Your task to perform on an android device: Open the calendar and show me this week's events? Image 0: 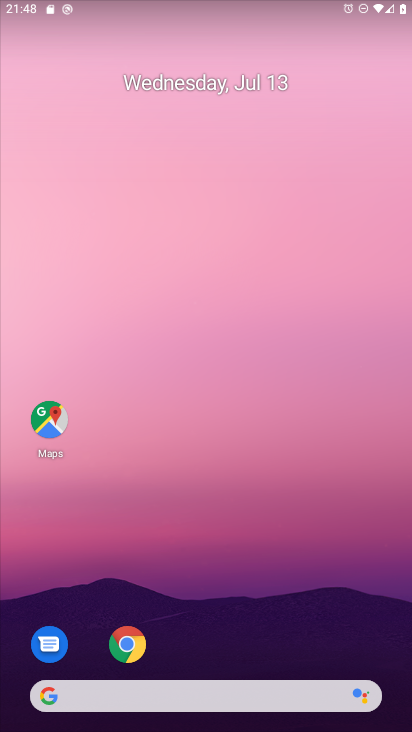
Step 0: press home button
Your task to perform on an android device: Open the calendar and show me this week's events? Image 1: 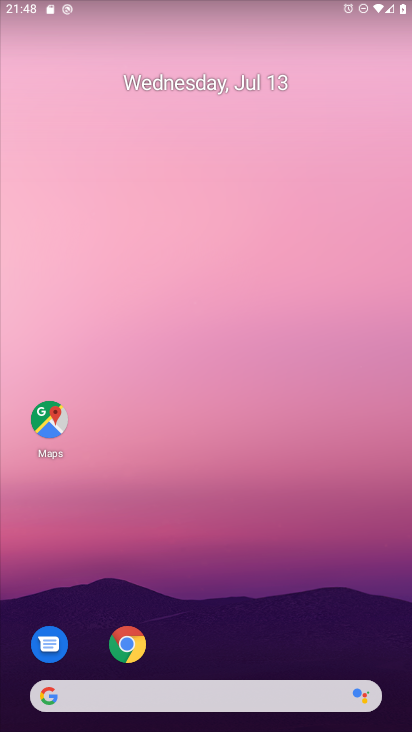
Step 1: drag from (302, 613) to (285, 167)
Your task to perform on an android device: Open the calendar and show me this week's events? Image 2: 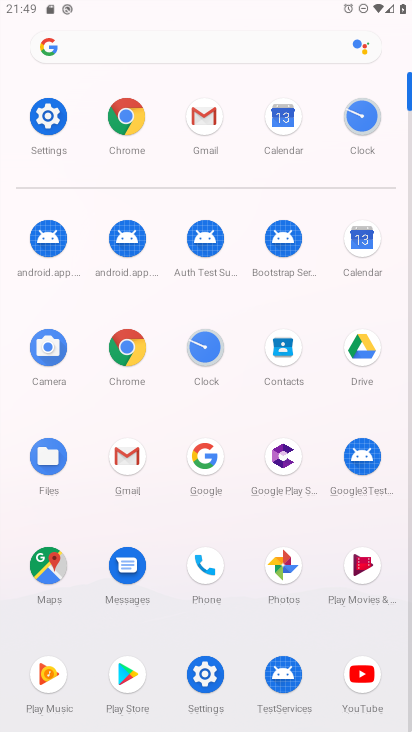
Step 2: click (362, 246)
Your task to perform on an android device: Open the calendar and show me this week's events? Image 3: 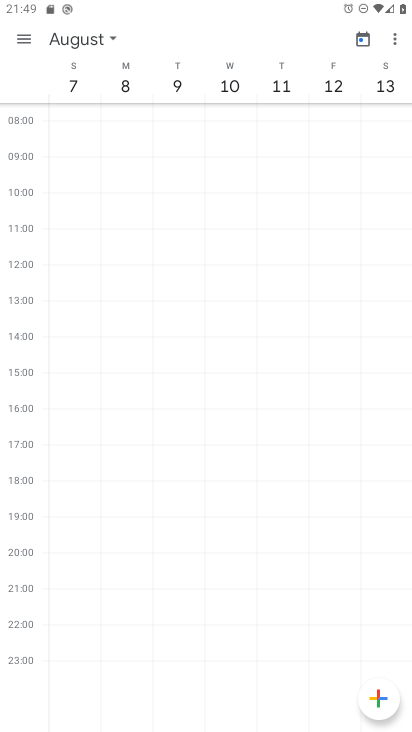
Step 3: click (19, 43)
Your task to perform on an android device: Open the calendar and show me this week's events? Image 4: 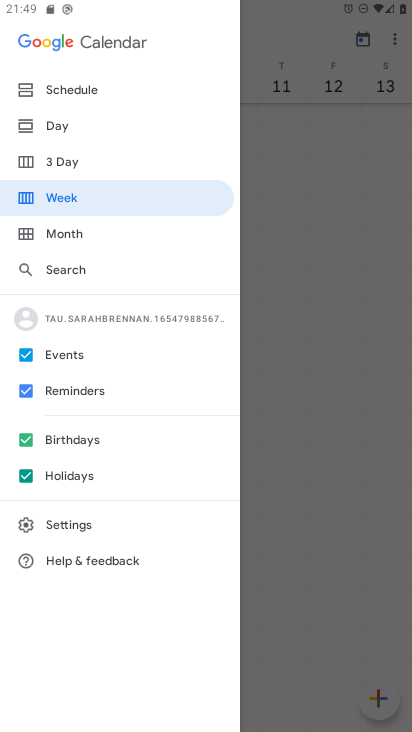
Step 4: click (71, 227)
Your task to perform on an android device: Open the calendar and show me this week's events? Image 5: 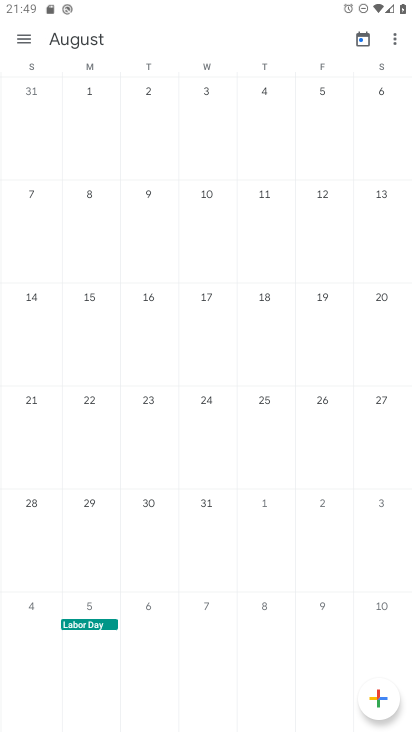
Step 5: drag from (118, 292) to (408, 305)
Your task to perform on an android device: Open the calendar and show me this week's events? Image 6: 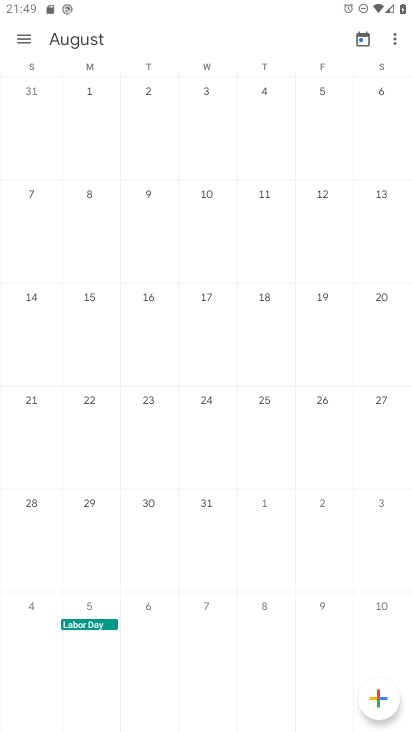
Step 6: drag from (80, 229) to (407, 333)
Your task to perform on an android device: Open the calendar and show me this week's events? Image 7: 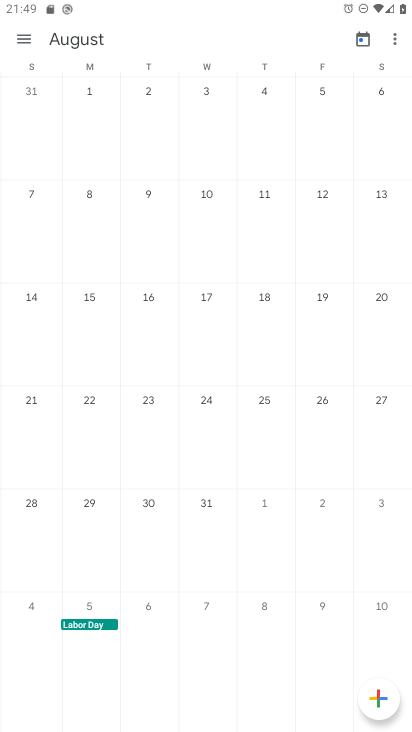
Step 7: drag from (63, 242) to (393, 275)
Your task to perform on an android device: Open the calendar and show me this week's events? Image 8: 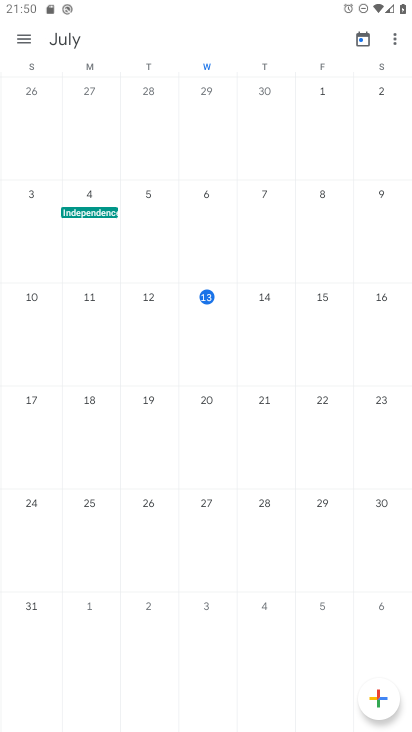
Step 8: click (19, 41)
Your task to perform on an android device: Open the calendar and show me this week's events? Image 9: 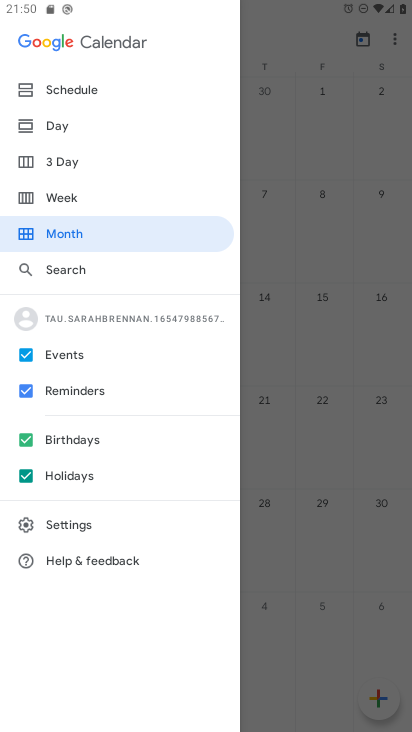
Step 9: click (97, 85)
Your task to perform on an android device: Open the calendar and show me this week's events? Image 10: 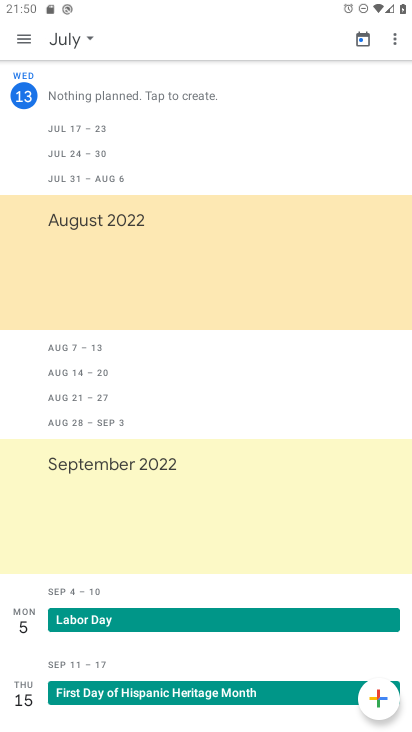
Step 10: task complete